Your task to perform on an android device: What's the weather going to be tomorrow? Image 0: 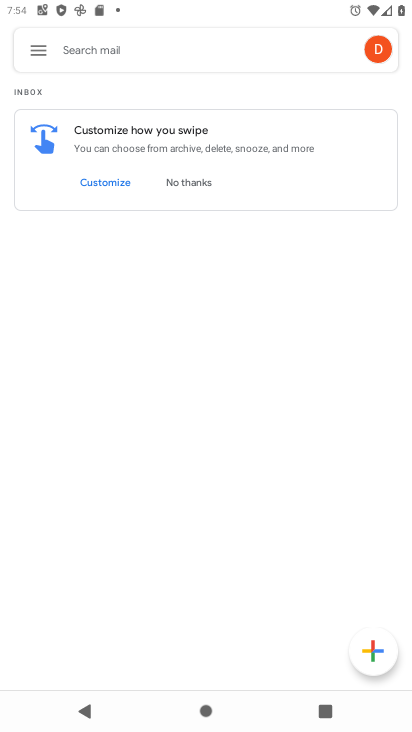
Step 0: press home button
Your task to perform on an android device: What's the weather going to be tomorrow? Image 1: 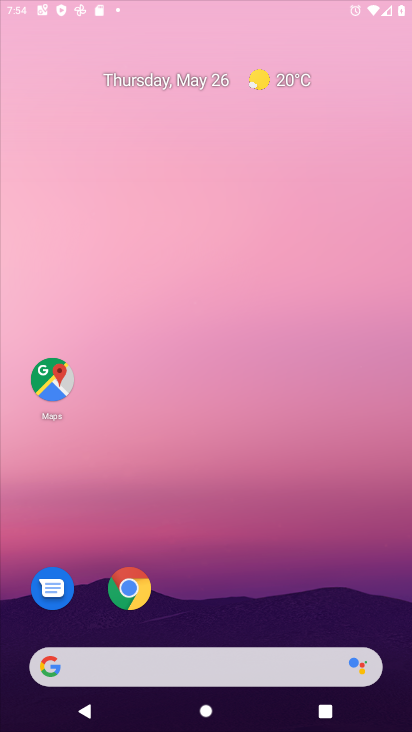
Step 1: drag from (362, 609) to (233, 12)
Your task to perform on an android device: What's the weather going to be tomorrow? Image 2: 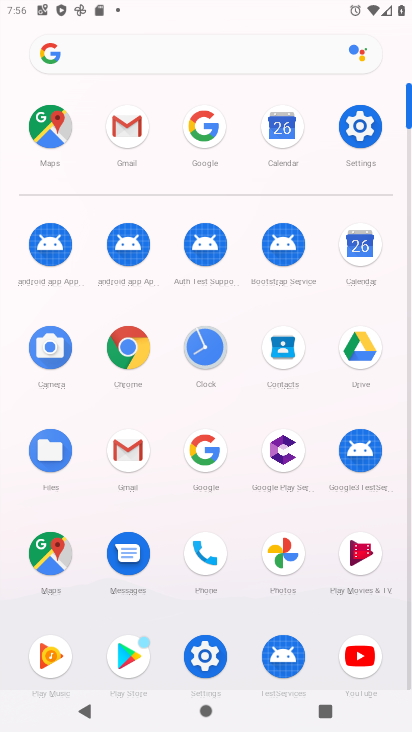
Step 2: click (205, 447)
Your task to perform on an android device: What's the weather going to be tomorrow? Image 3: 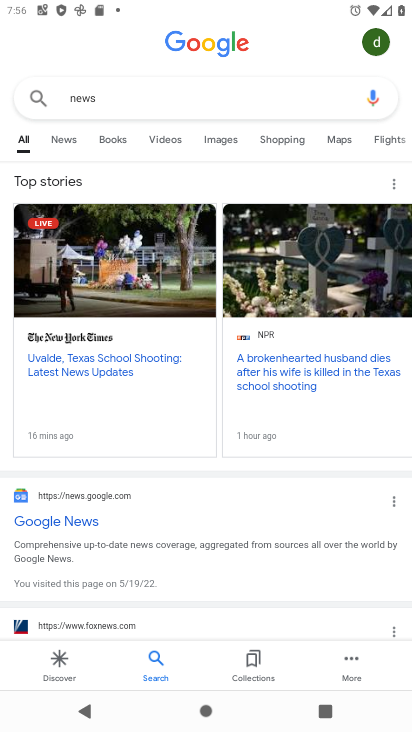
Step 3: press back button
Your task to perform on an android device: What's the weather going to be tomorrow? Image 4: 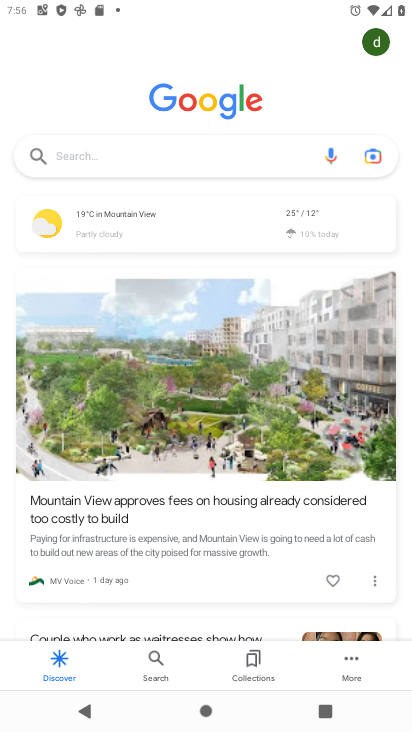
Step 4: click (105, 149)
Your task to perform on an android device: What's the weather going to be tomorrow? Image 5: 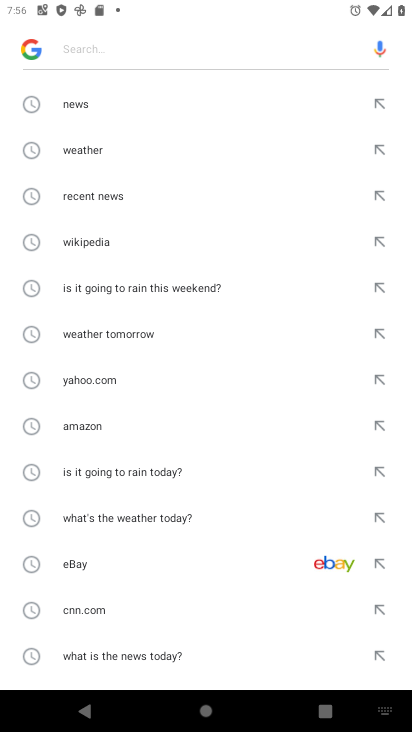
Step 5: drag from (228, 619) to (220, 200)
Your task to perform on an android device: What's the weather going to be tomorrow? Image 6: 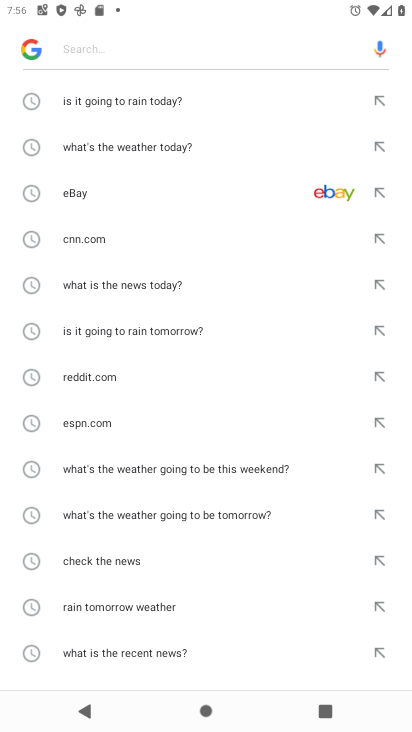
Step 6: click (222, 521)
Your task to perform on an android device: What's the weather going to be tomorrow? Image 7: 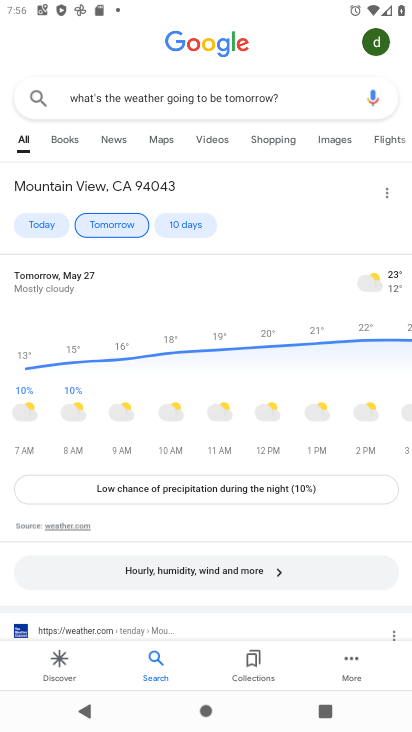
Step 7: task complete